Your task to perform on an android device: turn off translation in the chrome app Image 0: 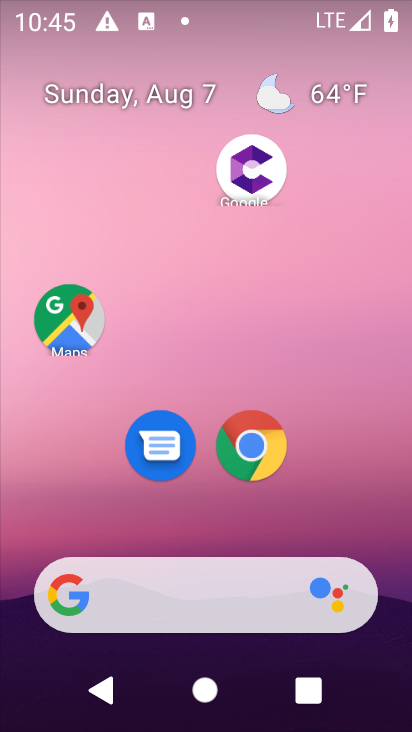
Step 0: press home button
Your task to perform on an android device: turn off translation in the chrome app Image 1: 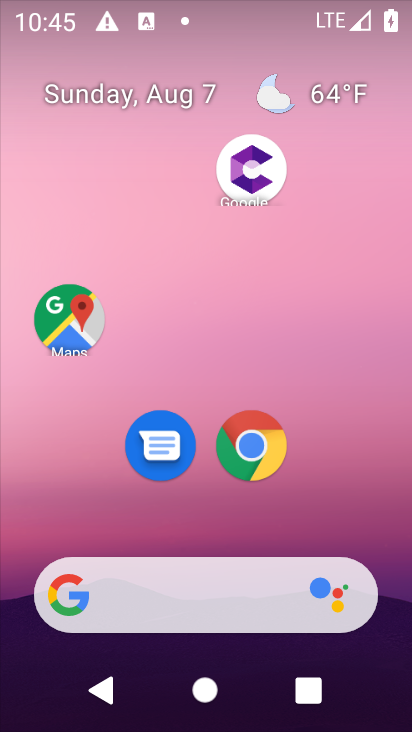
Step 1: click (246, 438)
Your task to perform on an android device: turn off translation in the chrome app Image 2: 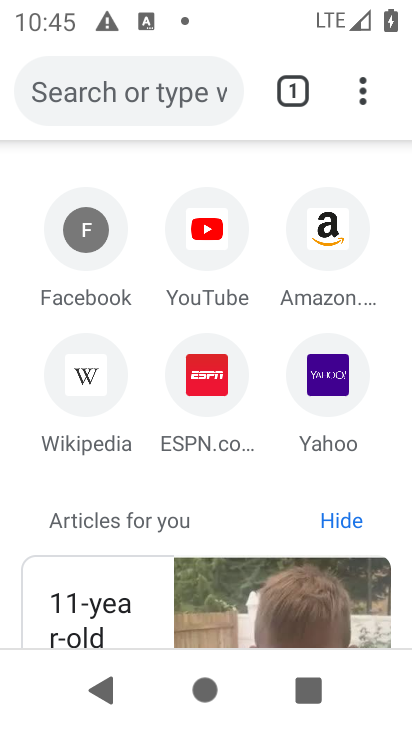
Step 2: click (363, 84)
Your task to perform on an android device: turn off translation in the chrome app Image 3: 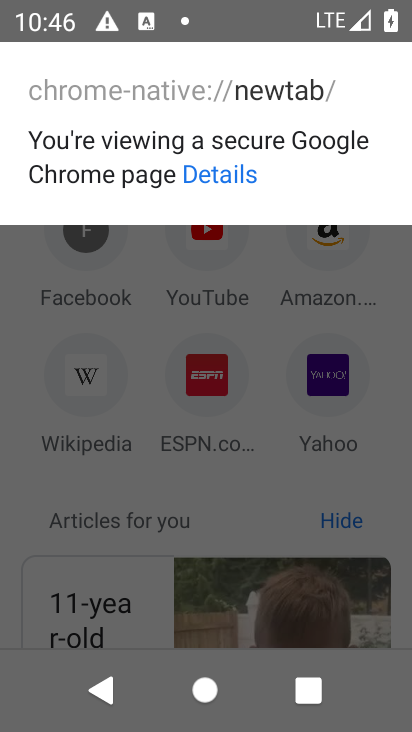
Step 3: click (281, 322)
Your task to perform on an android device: turn off translation in the chrome app Image 4: 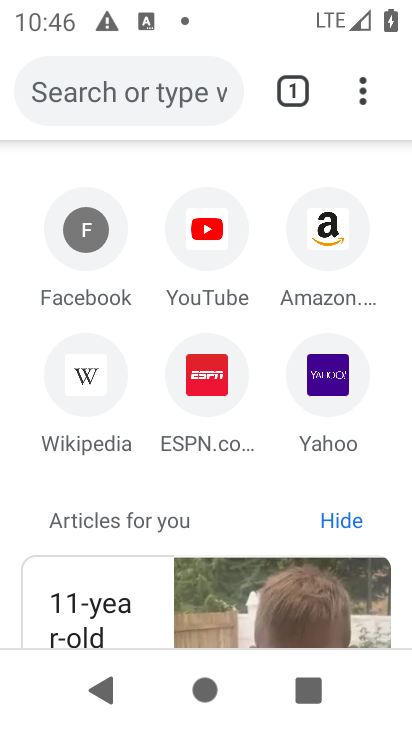
Step 4: click (364, 98)
Your task to perform on an android device: turn off translation in the chrome app Image 5: 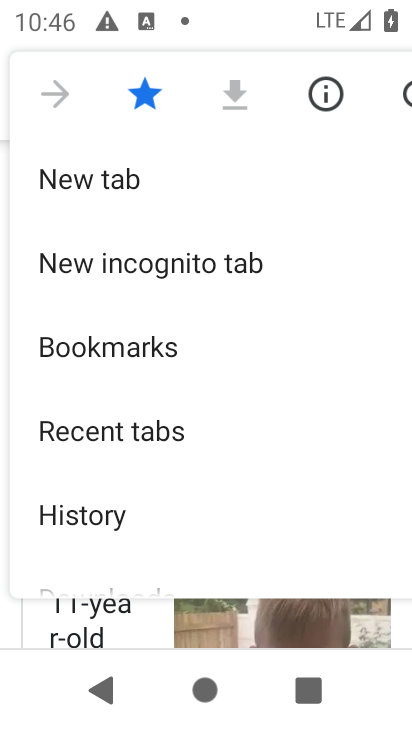
Step 5: drag from (188, 549) to (182, 134)
Your task to perform on an android device: turn off translation in the chrome app Image 6: 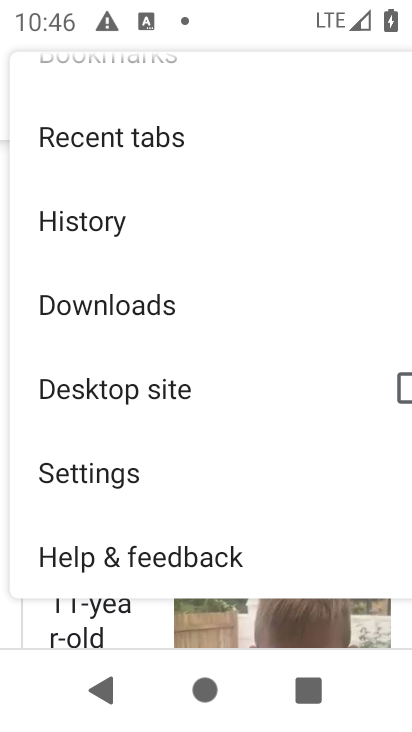
Step 6: click (149, 473)
Your task to perform on an android device: turn off translation in the chrome app Image 7: 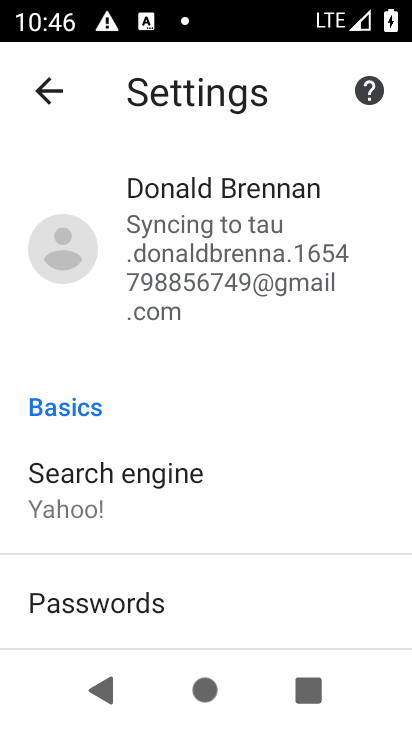
Step 7: drag from (256, 586) to (259, 170)
Your task to perform on an android device: turn off translation in the chrome app Image 8: 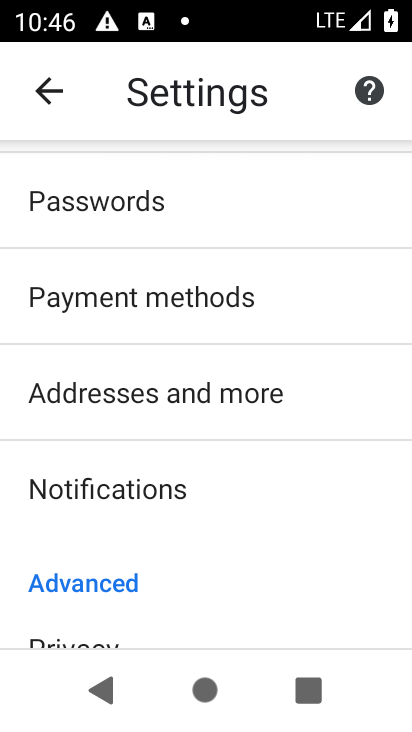
Step 8: drag from (232, 606) to (246, 238)
Your task to perform on an android device: turn off translation in the chrome app Image 9: 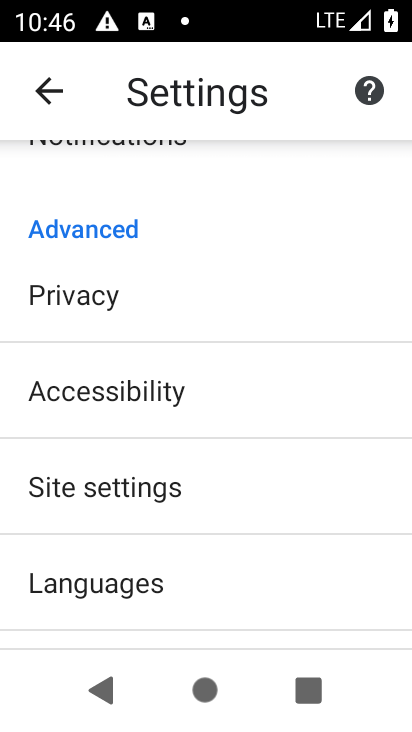
Step 9: click (177, 575)
Your task to perform on an android device: turn off translation in the chrome app Image 10: 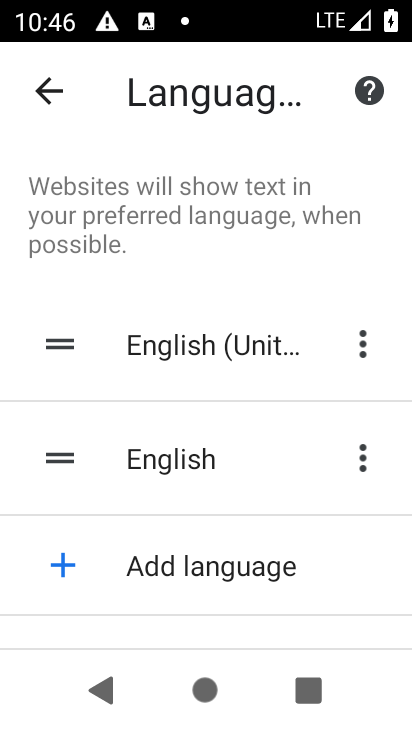
Step 10: task complete